Your task to perform on an android device: turn off notifications settings in the gmail app Image 0: 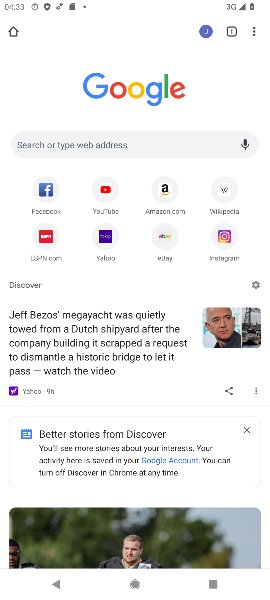
Step 0: press home button
Your task to perform on an android device: turn off notifications settings in the gmail app Image 1: 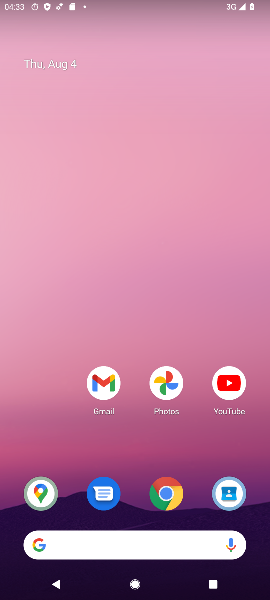
Step 1: click (103, 387)
Your task to perform on an android device: turn off notifications settings in the gmail app Image 2: 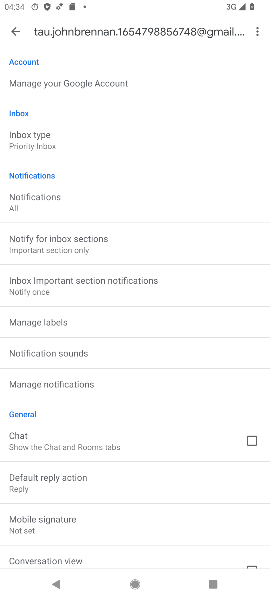
Step 2: click (11, 27)
Your task to perform on an android device: turn off notifications settings in the gmail app Image 3: 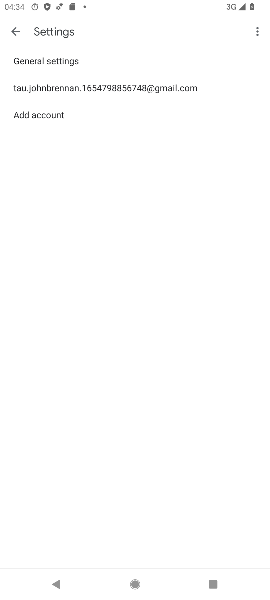
Step 3: click (13, 28)
Your task to perform on an android device: turn off notifications settings in the gmail app Image 4: 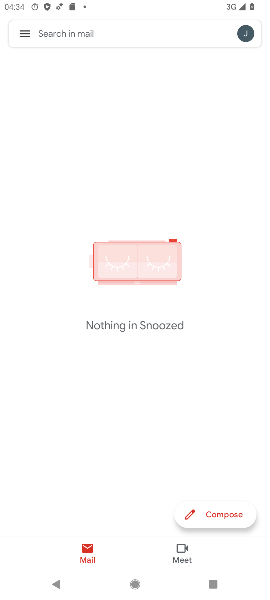
Step 4: click (78, 556)
Your task to perform on an android device: turn off notifications settings in the gmail app Image 5: 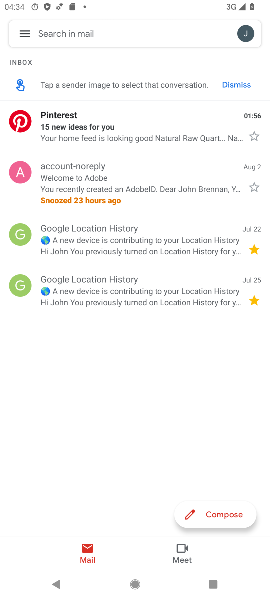
Step 5: click (25, 32)
Your task to perform on an android device: turn off notifications settings in the gmail app Image 6: 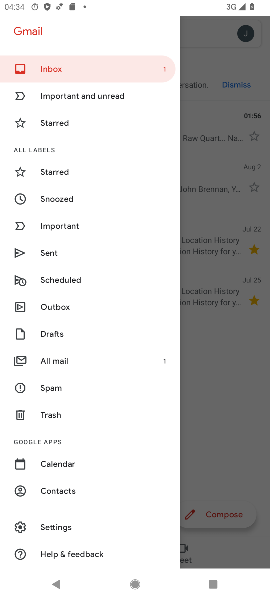
Step 6: click (61, 524)
Your task to perform on an android device: turn off notifications settings in the gmail app Image 7: 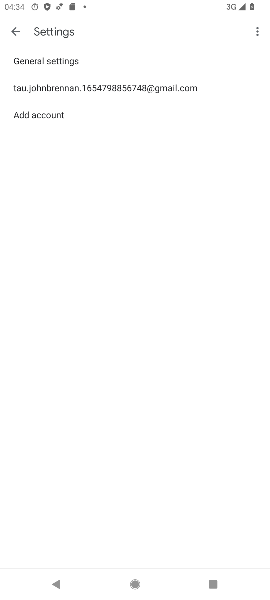
Step 7: click (93, 83)
Your task to perform on an android device: turn off notifications settings in the gmail app Image 8: 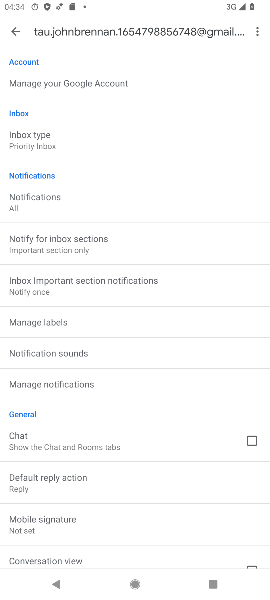
Step 8: click (72, 192)
Your task to perform on an android device: turn off notifications settings in the gmail app Image 9: 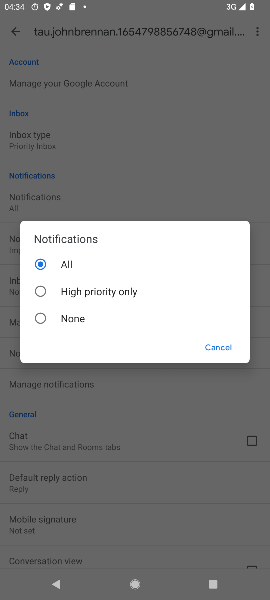
Step 9: click (204, 345)
Your task to perform on an android device: turn off notifications settings in the gmail app Image 10: 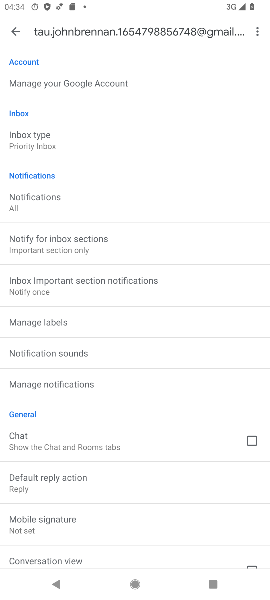
Step 10: click (63, 381)
Your task to perform on an android device: turn off notifications settings in the gmail app Image 11: 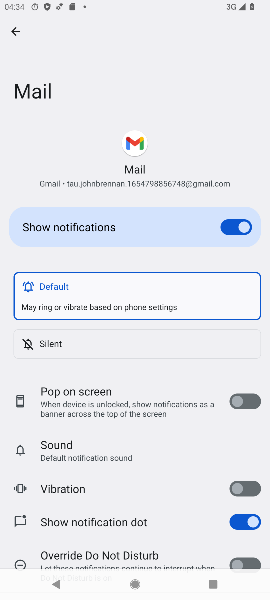
Step 11: click (230, 232)
Your task to perform on an android device: turn off notifications settings in the gmail app Image 12: 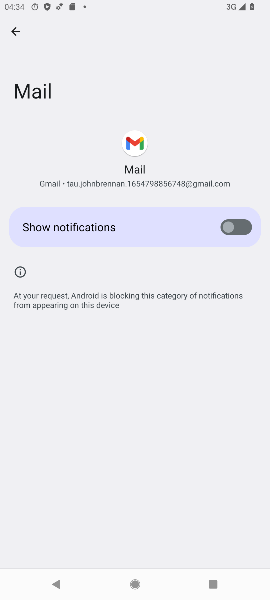
Step 12: task complete